Your task to perform on an android device: open the mobile data screen to see how much data has been used Image 0: 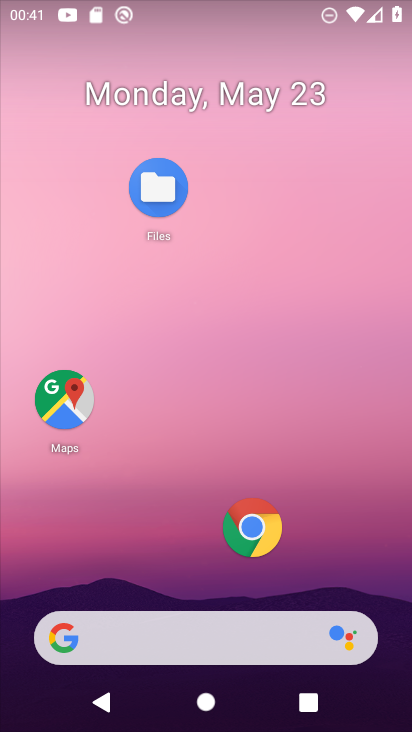
Step 0: drag from (177, 577) to (141, 89)
Your task to perform on an android device: open the mobile data screen to see how much data has been used Image 1: 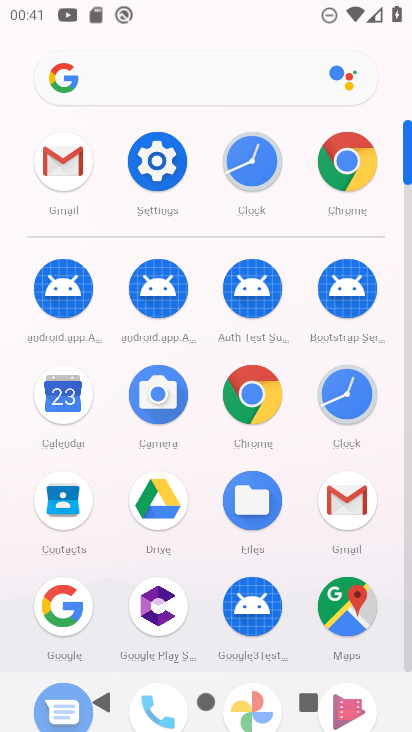
Step 1: click (155, 167)
Your task to perform on an android device: open the mobile data screen to see how much data has been used Image 2: 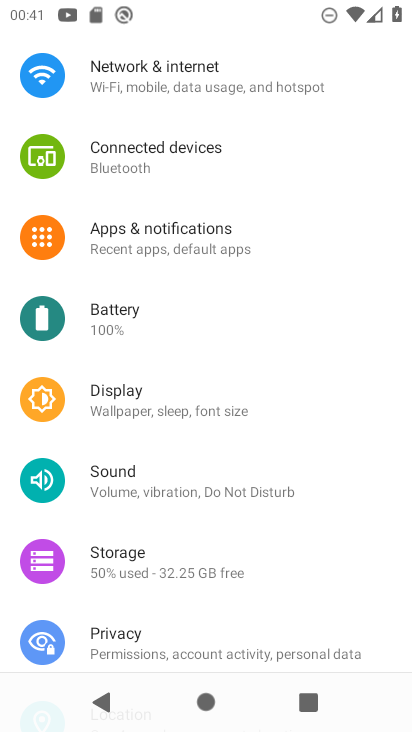
Step 2: click (152, 66)
Your task to perform on an android device: open the mobile data screen to see how much data has been used Image 3: 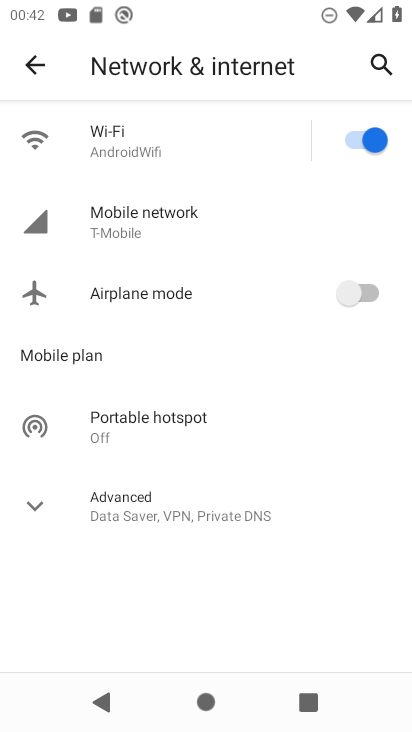
Step 3: click (166, 215)
Your task to perform on an android device: open the mobile data screen to see how much data has been used Image 4: 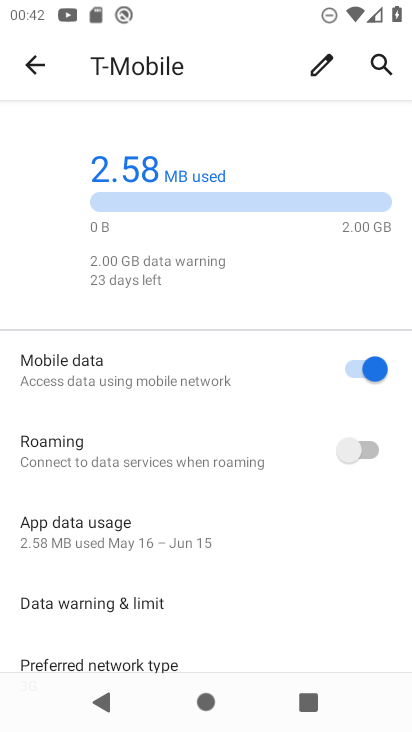
Step 4: task complete